Your task to perform on an android device: Open Maps and search for coffee Image 0: 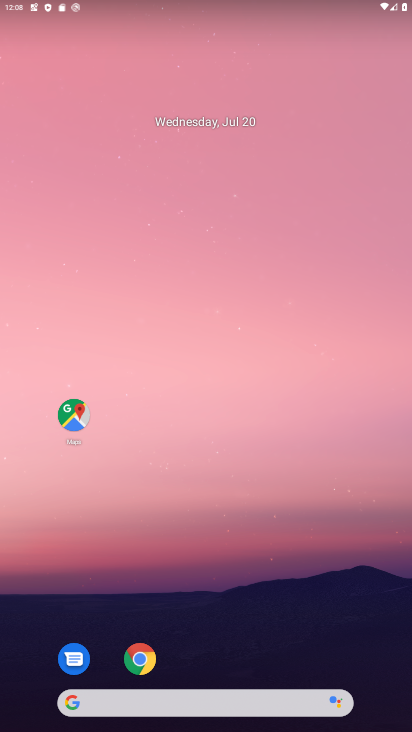
Step 0: click (246, 607)
Your task to perform on an android device: Open Maps and search for coffee Image 1: 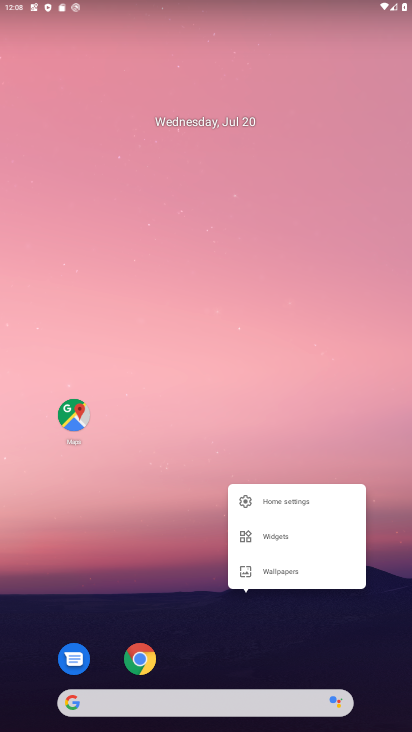
Step 1: click (160, 366)
Your task to perform on an android device: Open Maps and search for coffee Image 2: 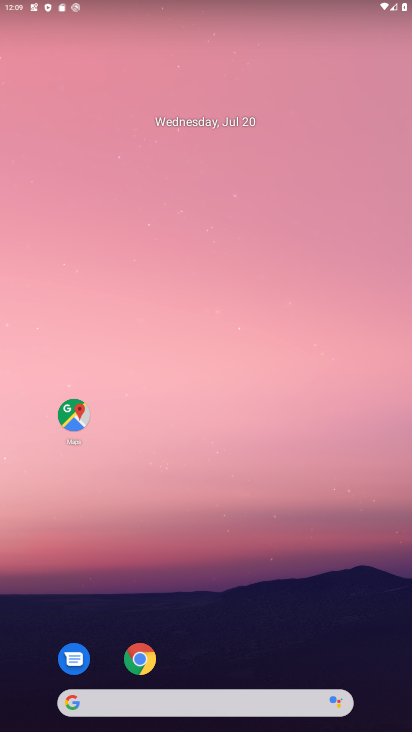
Step 2: click (69, 416)
Your task to perform on an android device: Open Maps and search for coffee Image 3: 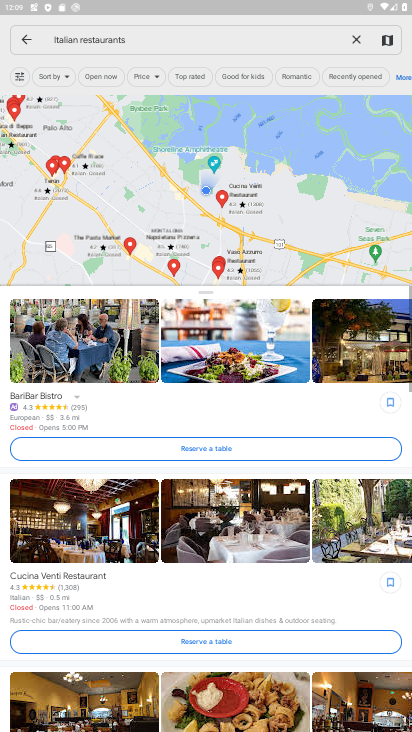
Step 3: click (213, 42)
Your task to perform on an android device: Open Maps and search for coffee Image 4: 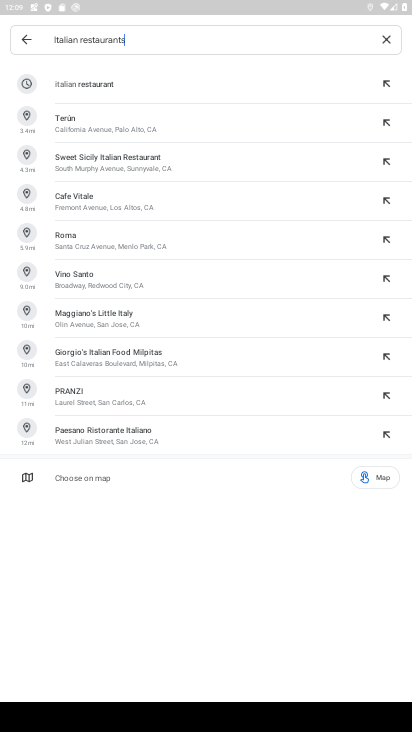
Step 4: click (385, 40)
Your task to perform on an android device: Open Maps and search for coffee Image 5: 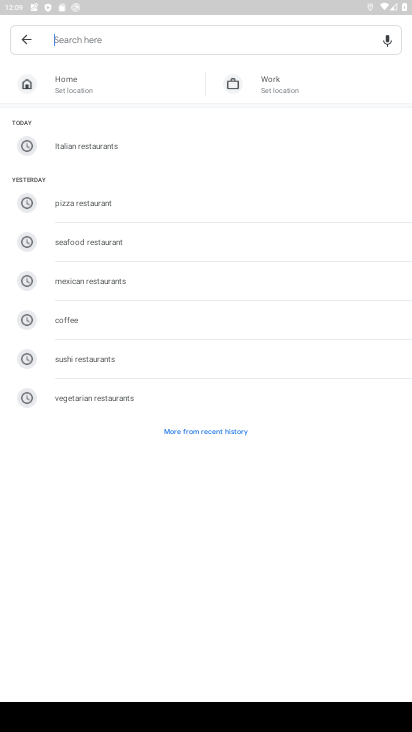
Step 5: type "coffee"
Your task to perform on an android device: Open Maps and search for coffee Image 6: 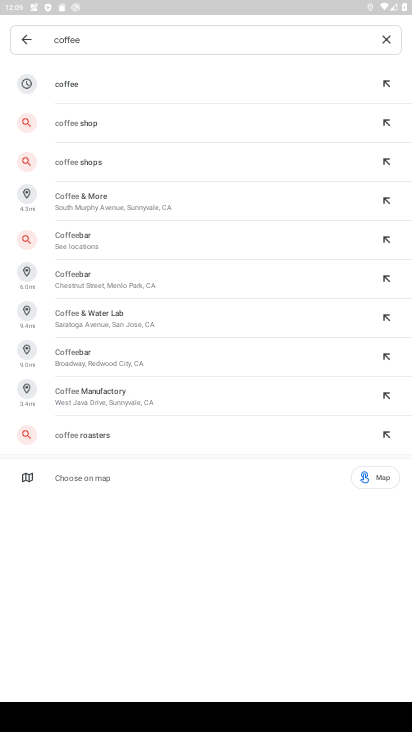
Step 6: press enter
Your task to perform on an android device: Open Maps and search for coffee Image 7: 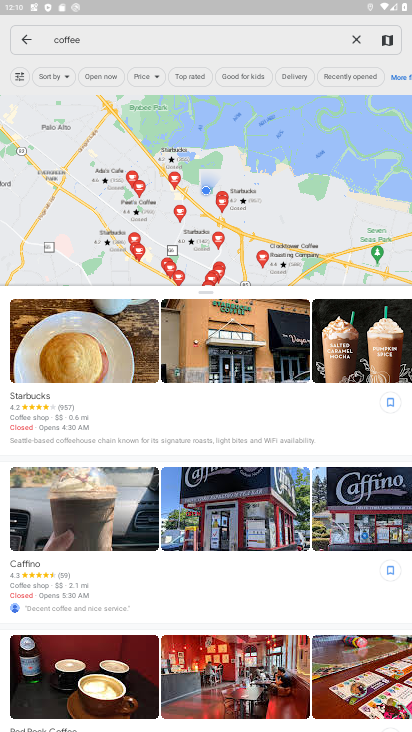
Step 7: task complete